Your task to perform on an android device: check the backup settings in the google photos Image 0: 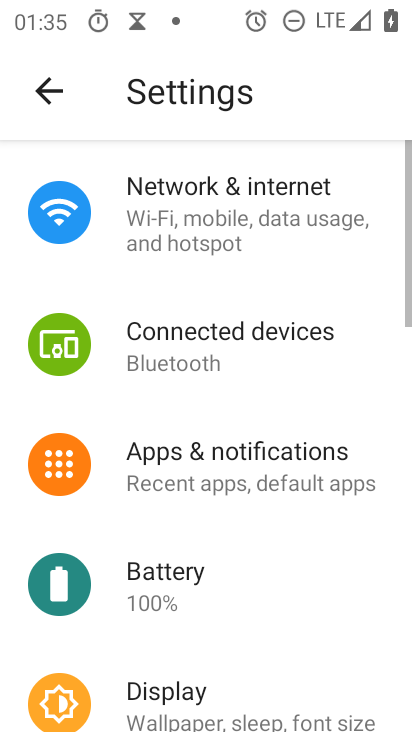
Step 0: press home button
Your task to perform on an android device: check the backup settings in the google photos Image 1: 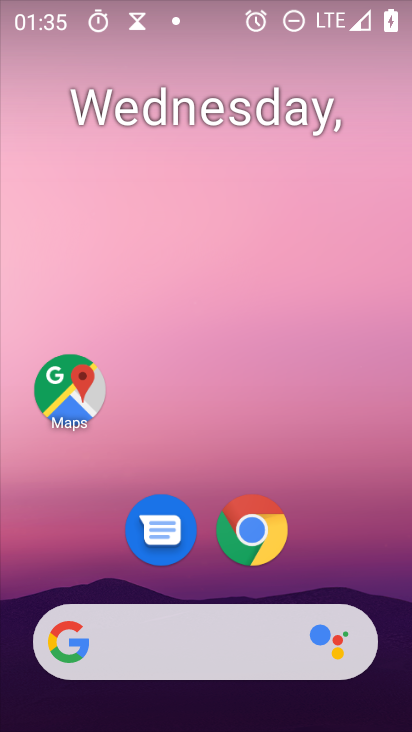
Step 1: drag from (277, 667) to (267, 64)
Your task to perform on an android device: check the backup settings in the google photos Image 2: 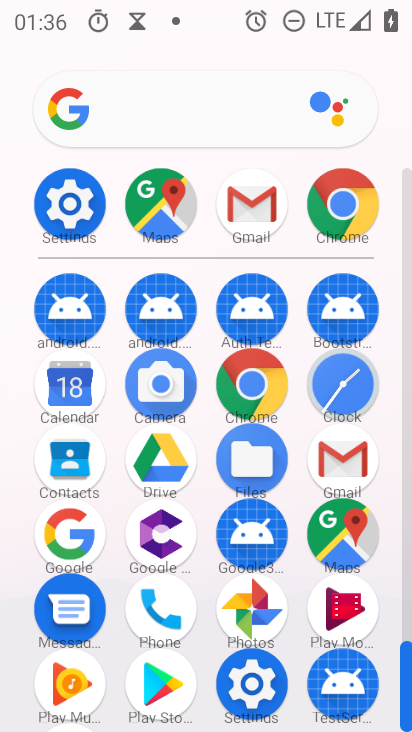
Step 2: click (271, 606)
Your task to perform on an android device: check the backup settings in the google photos Image 3: 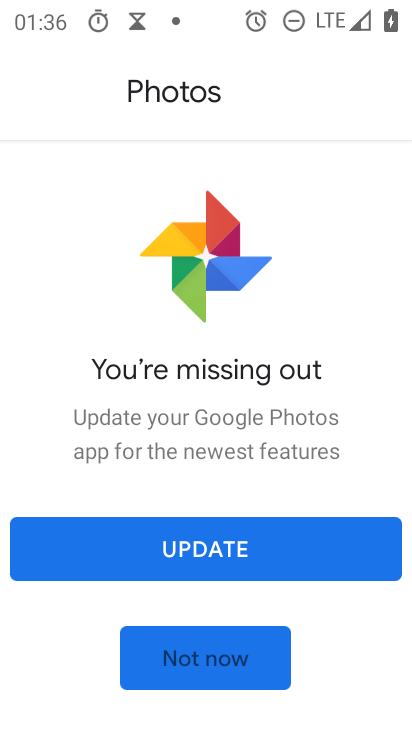
Step 3: click (223, 550)
Your task to perform on an android device: check the backup settings in the google photos Image 4: 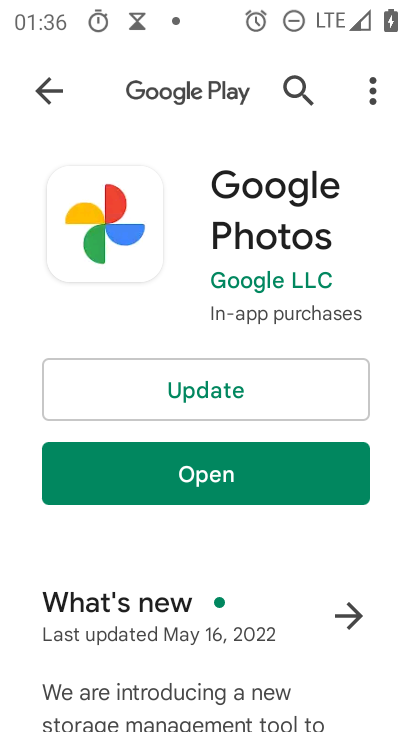
Step 4: click (228, 395)
Your task to perform on an android device: check the backup settings in the google photos Image 5: 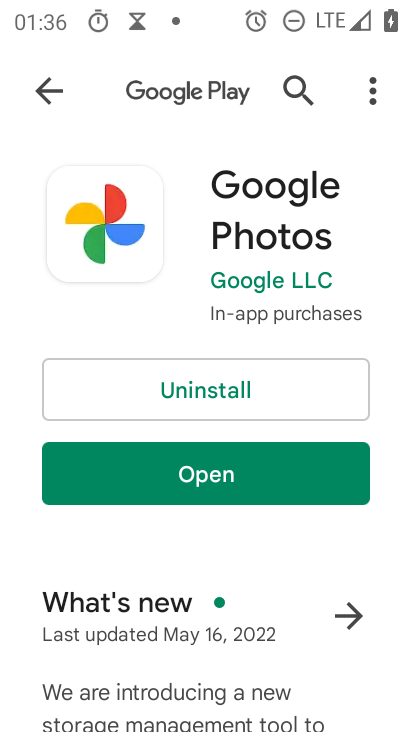
Step 5: click (229, 465)
Your task to perform on an android device: check the backup settings in the google photos Image 6: 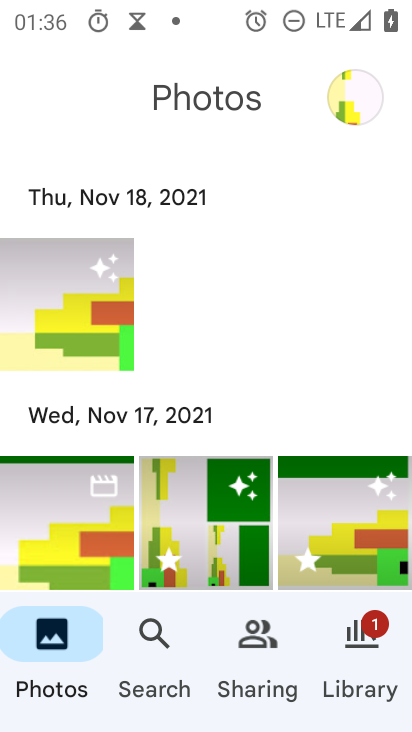
Step 6: click (363, 100)
Your task to perform on an android device: check the backup settings in the google photos Image 7: 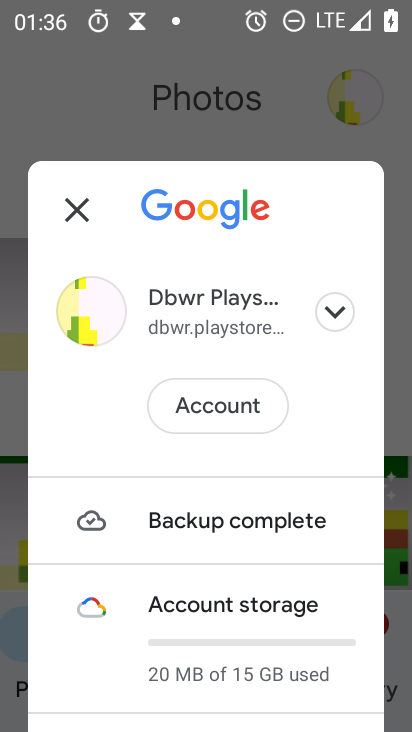
Step 7: drag from (275, 618) to (276, 211)
Your task to perform on an android device: check the backup settings in the google photos Image 8: 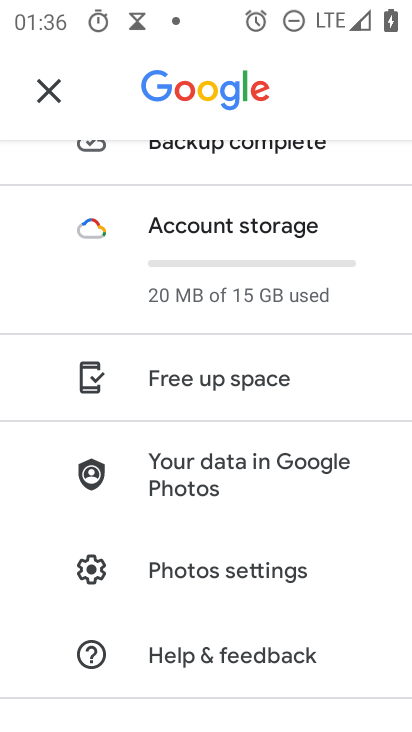
Step 8: click (230, 573)
Your task to perform on an android device: check the backup settings in the google photos Image 9: 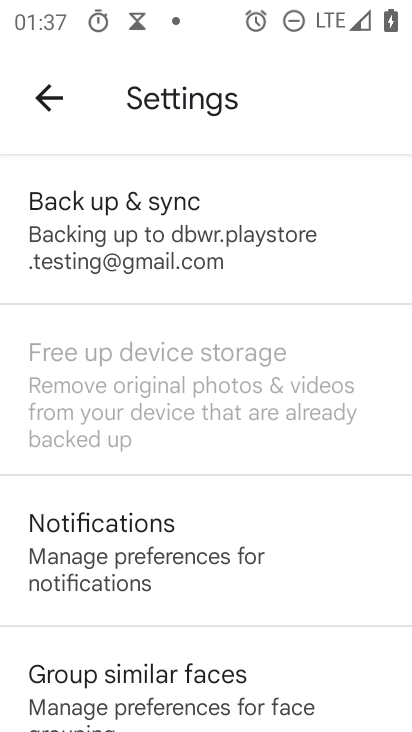
Step 9: click (196, 238)
Your task to perform on an android device: check the backup settings in the google photos Image 10: 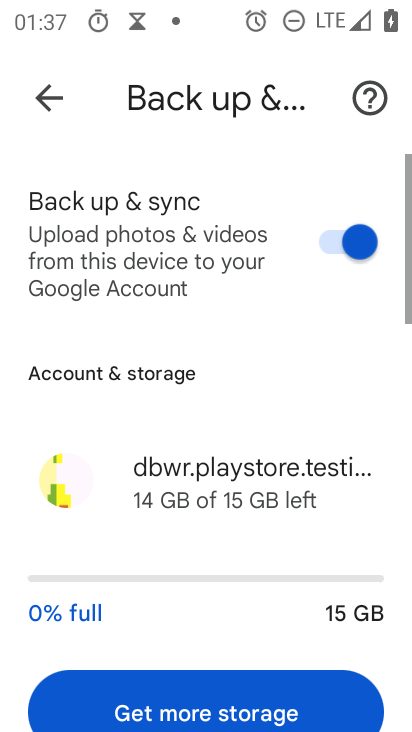
Step 10: task complete